Your task to perform on an android device: turn off javascript in the chrome app Image 0: 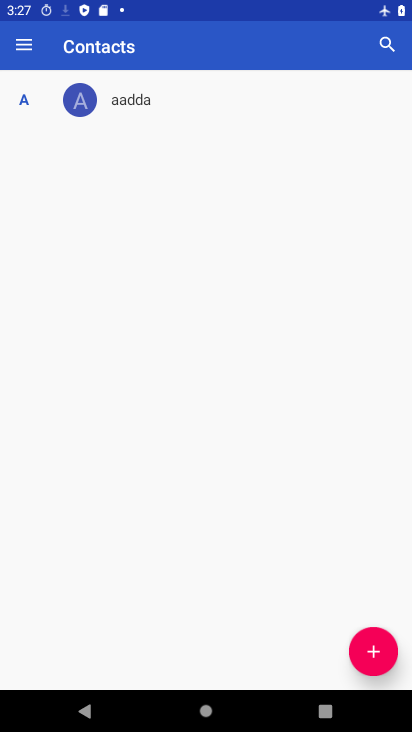
Step 0: drag from (168, 683) to (135, 277)
Your task to perform on an android device: turn off javascript in the chrome app Image 1: 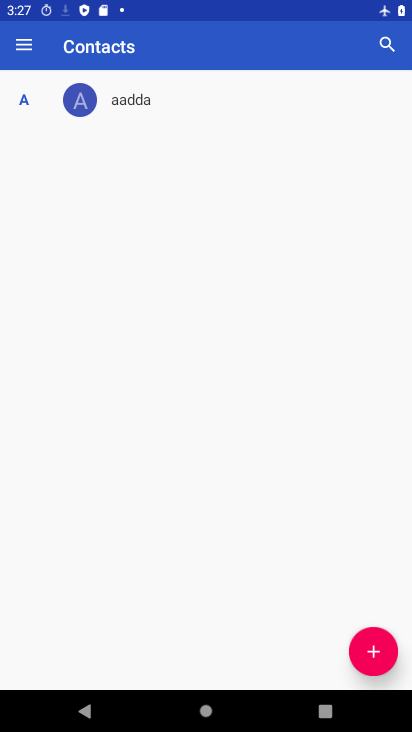
Step 1: click (31, 93)
Your task to perform on an android device: turn off javascript in the chrome app Image 2: 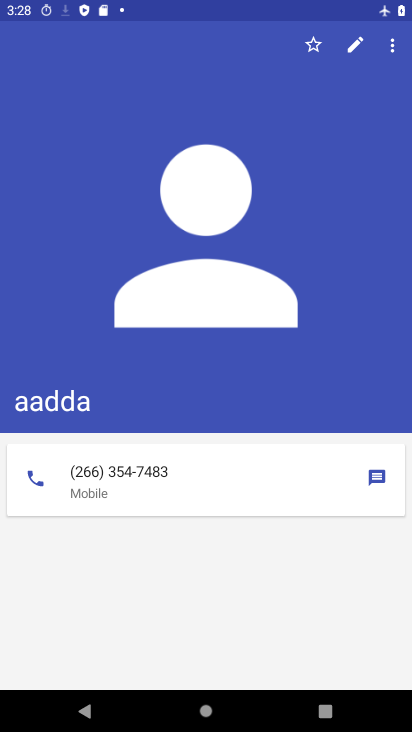
Step 2: press back button
Your task to perform on an android device: turn off javascript in the chrome app Image 3: 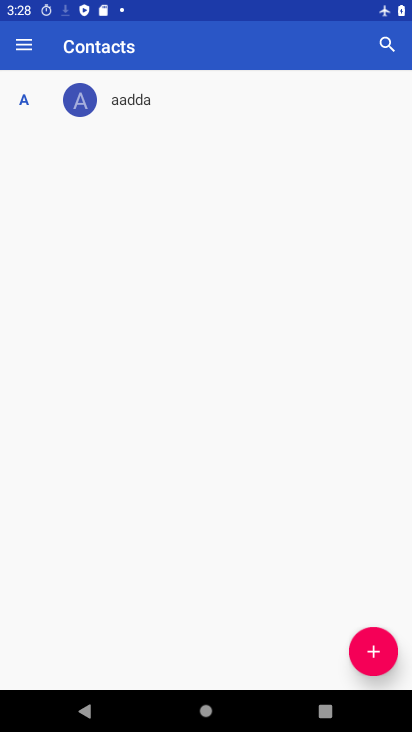
Step 3: click (35, 50)
Your task to perform on an android device: turn off javascript in the chrome app Image 4: 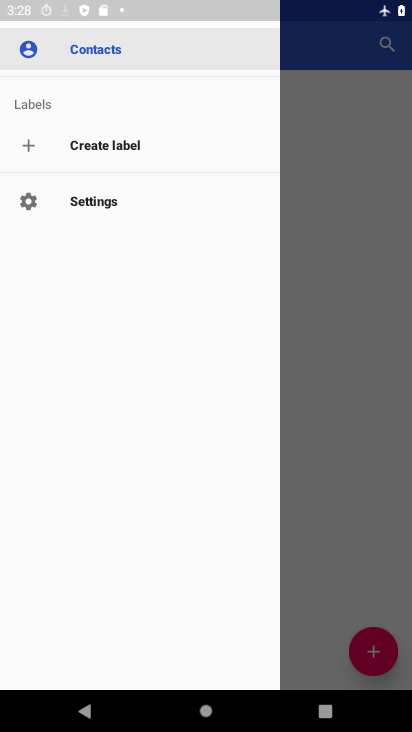
Step 4: click (326, 328)
Your task to perform on an android device: turn off javascript in the chrome app Image 5: 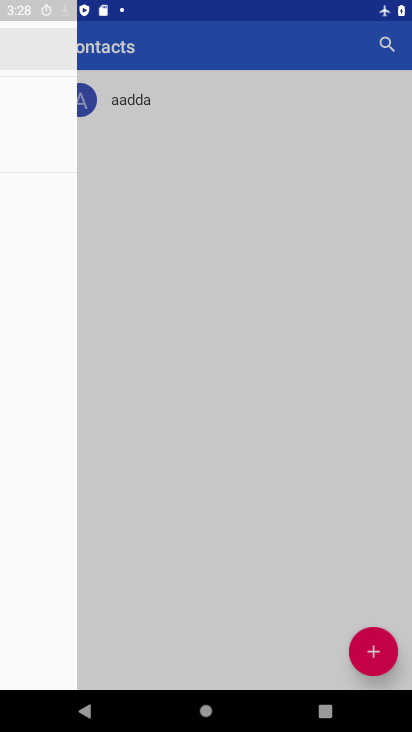
Step 5: click (336, 319)
Your task to perform on an android device: turn off javascript in the chrome app Image 6: 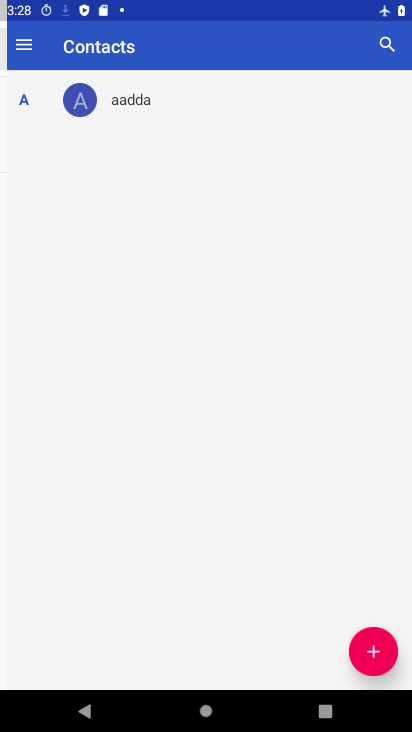
Step 6: click (337, 319)
Your task to perform on an android device: turn off javascript in the chrome app Image 7: 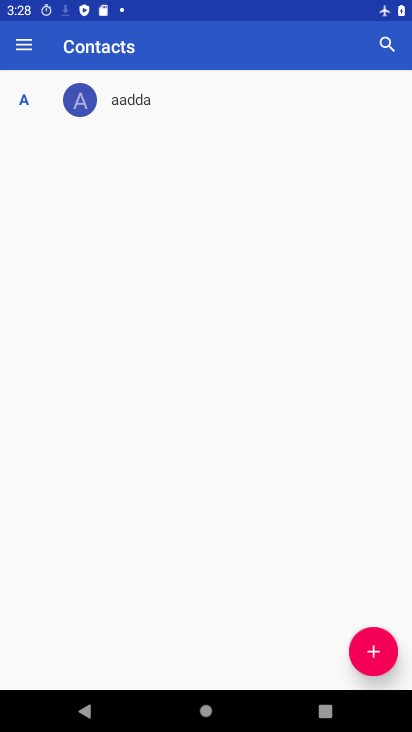
Step 7: click (329, 314)
Your task to perform on an android device: turn off javascript in the chrome app Image 8: 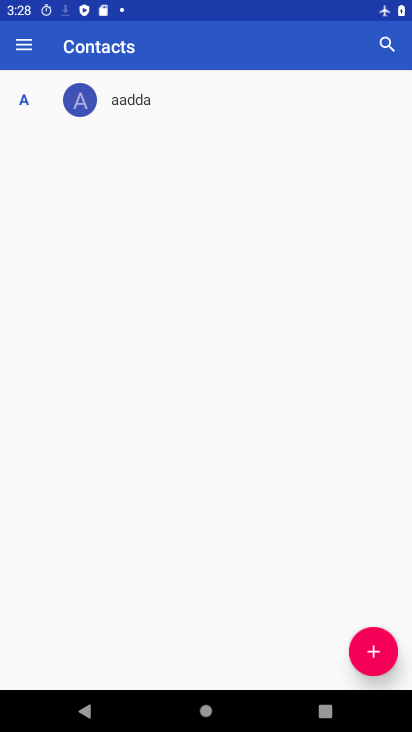
Step 8: click (35, 43)
Your task to perform on an android device: turn off javascript in the chrome app Image 9: 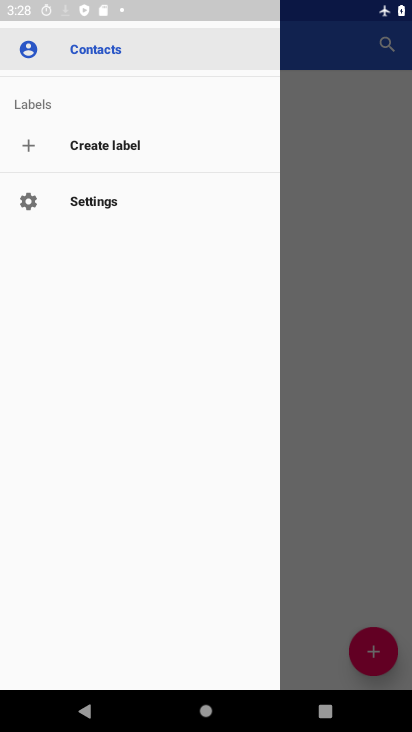
Step 9: click (356, 306)
Your task to perform on an android device: turn off javascript in the chrome app Image 10: 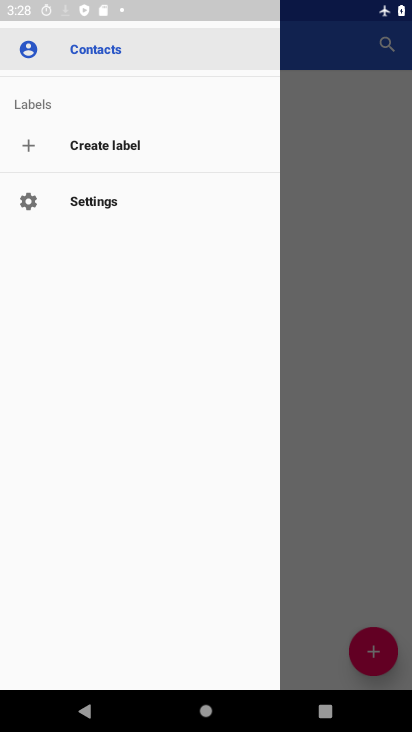
Step 10: press back button
Your task to perform on an android device: turn off javascript in the chrome app Image 11: 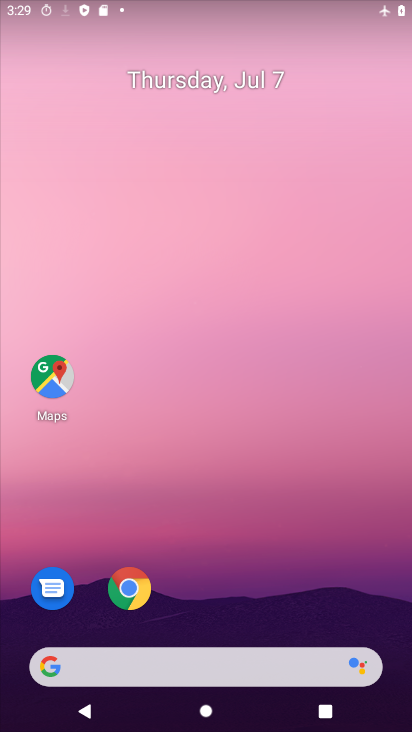
Step 11: drag from (267, 613) to (150, 13)
Your task to perform on an android device: turn off javascript in the chrome app Image 12: 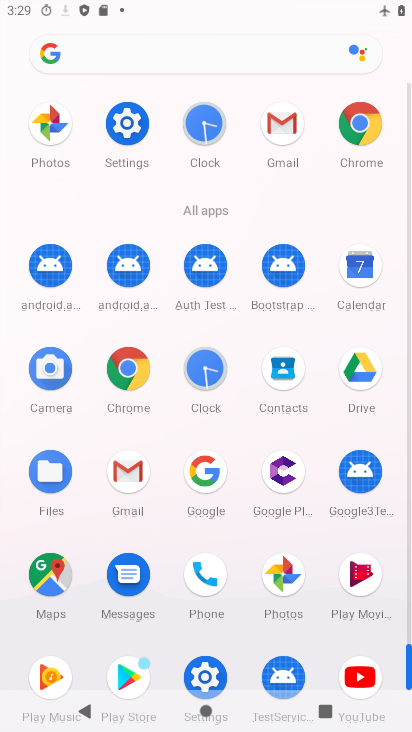
Step 12: click (362, 123)
Your task to perform on an android device: turn off javascript in the chrome app Image 13: 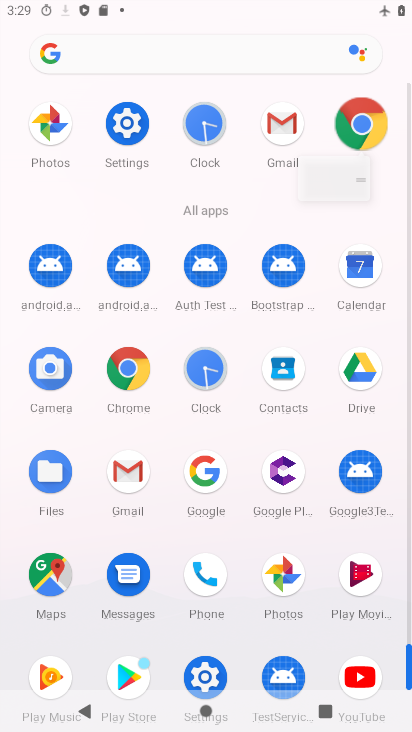
Step 13: click (363, 129)
Your task to perform on an android device: turn off javascript in the chrome app Image 14: 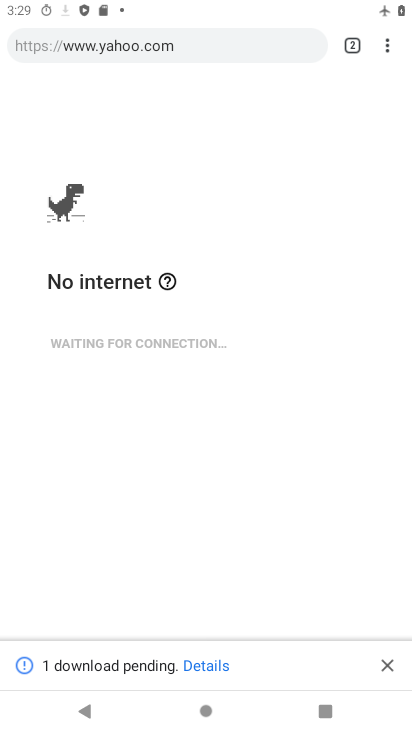
Step 14: drag from (391, 43) to (223, 572)
Your task to perform on an android device: turn off javascript in the chrome app Image 15: 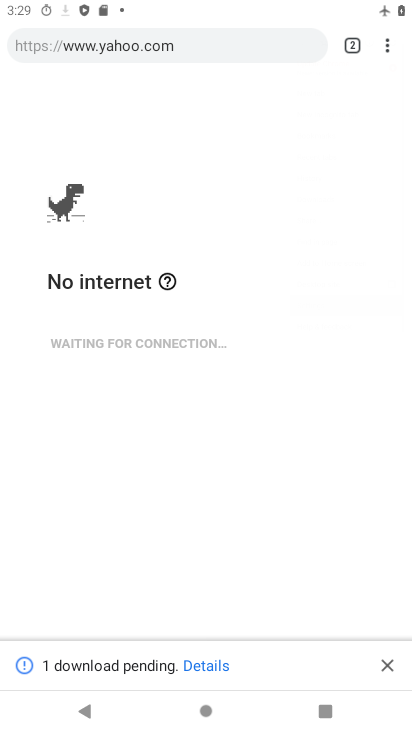
Step 15: click (231, 570)
Your task to perform on an android device: turn off javascript in the chrome app Image 16: 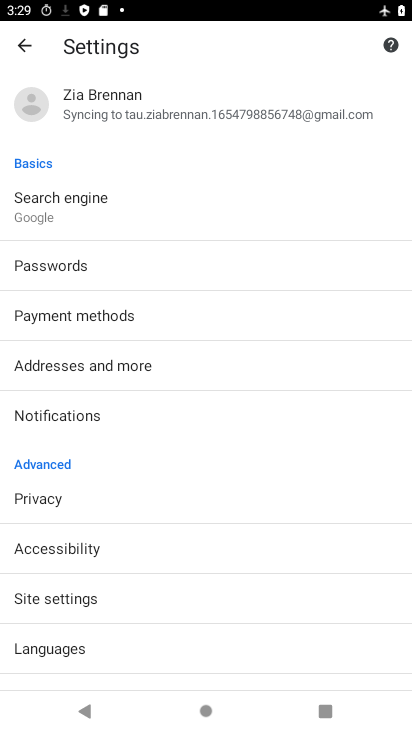
Step 16: drag from (73, 590) to (118, 206)
Your task to perform on an android device: turn off javascript in the chrome app Image 17: 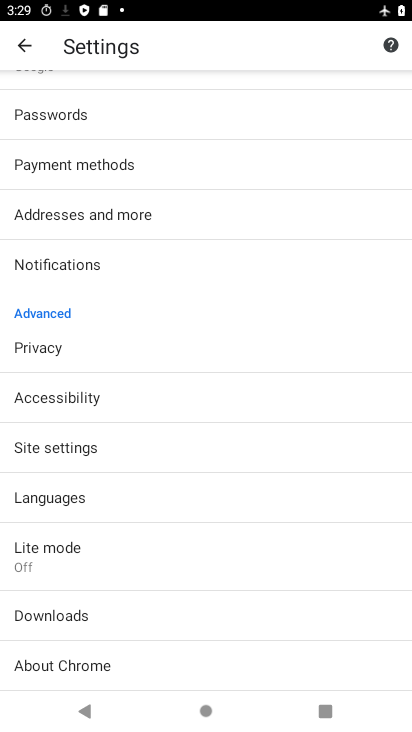
Step 17: click (49, 439)
Your task to perform on an android device: turn off javascript in the chrome app Image 18: 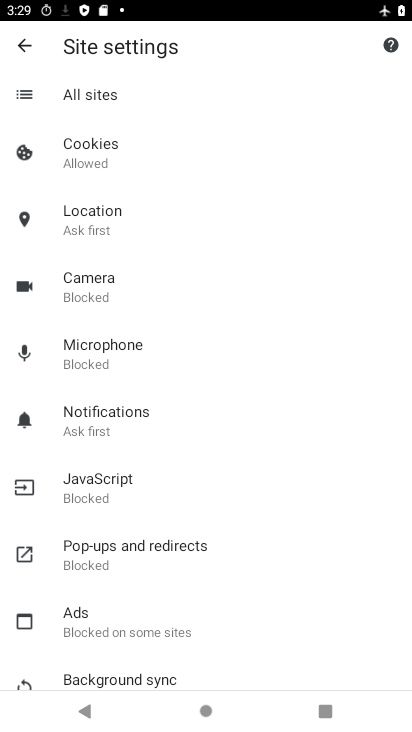
Step 18: click (109, 480)
Your task to perform on an android device: turn off javascript in the chrome app Image 19: 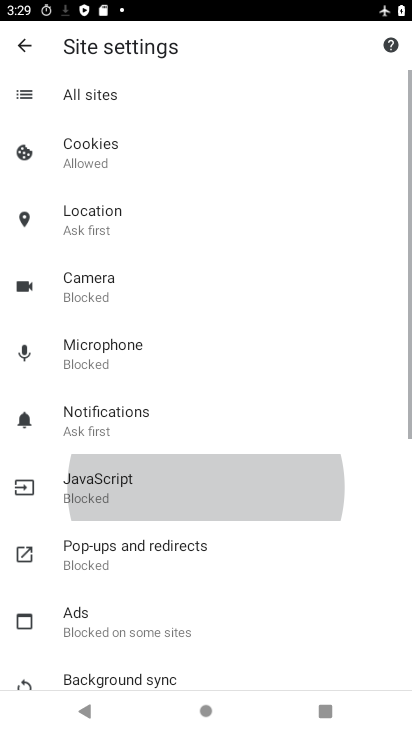
Step 19: click (108, 482)
Your task to perform on an android device: turn off javascript in the chrome app Image 20: 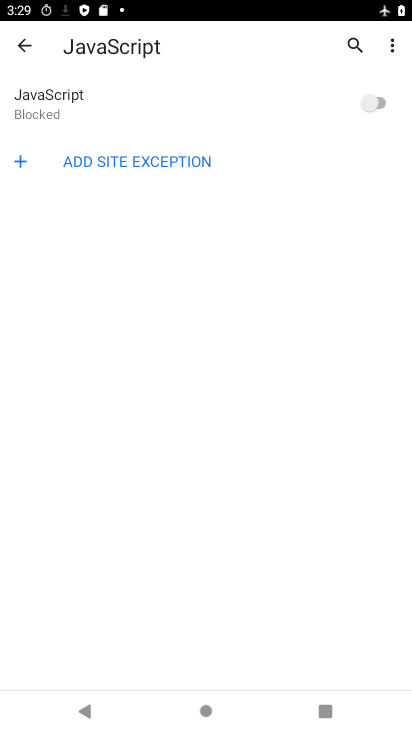
Step 20: task complete